Your task to perform on an android device: Check the news Image 0: 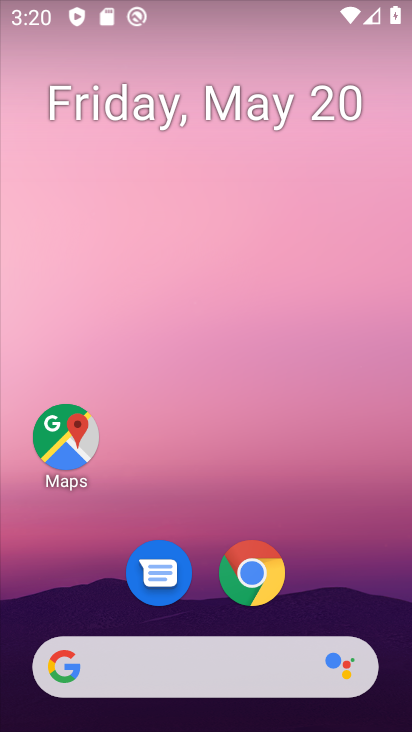
Step 0: drag from (375, 572) to (308, 153)
Your task to perform on an android device: Check the news Image 1: 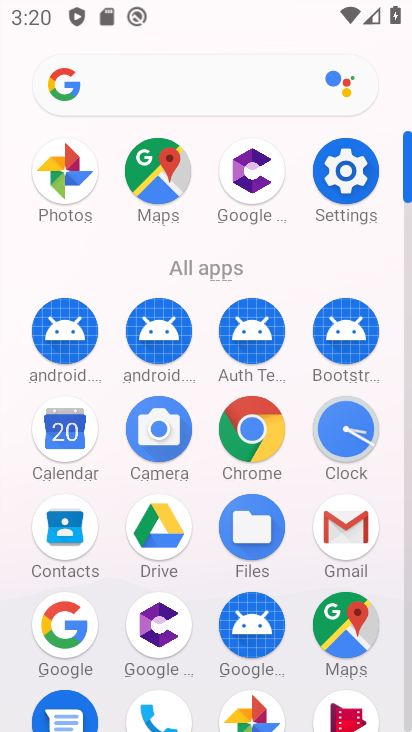
Step 1: click (246, 437)
Your task to perform on an android device: Check the news Image 2: 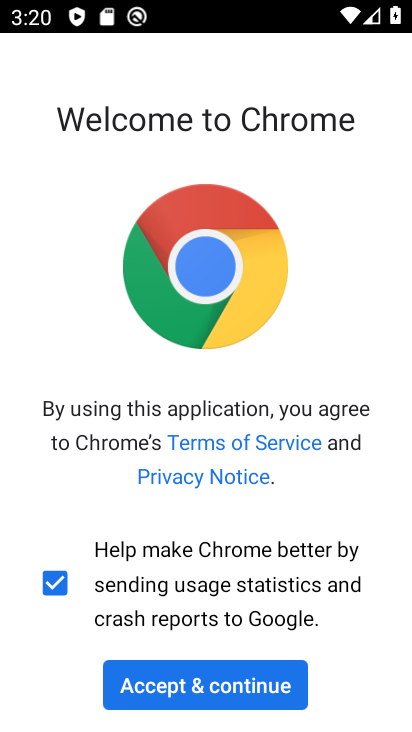
Step 2: click (158, 678)
Your task to perform on an android device: Check the news Image 3: 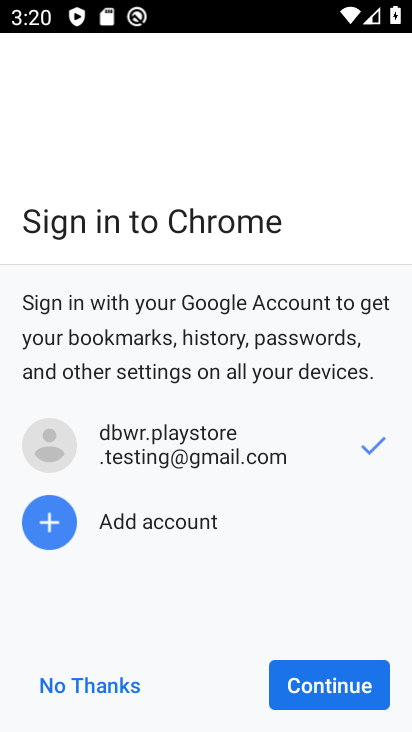
Step 3: click (296, 687)
Your task to perform on an android device: Check the news Image 4: 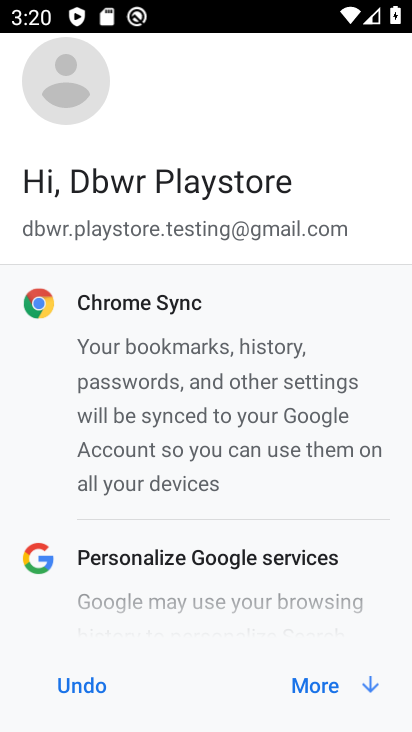
Step 4: click (343, 691)
Your task to perform on an android device: Check the news Image 5: 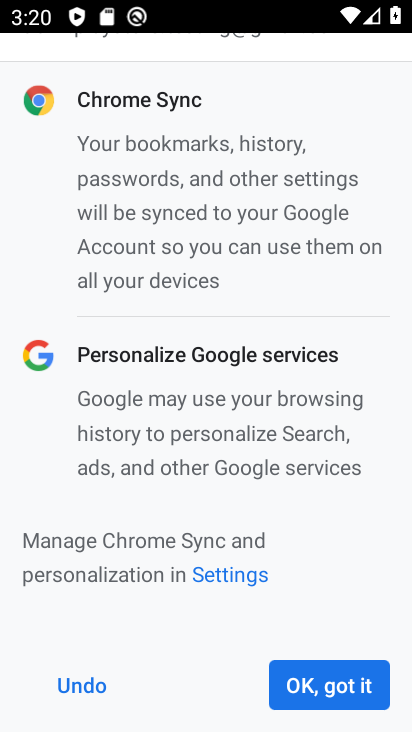
Step 5: click (343, 691)
Your task to perform on an android device: Check the news Image 6: 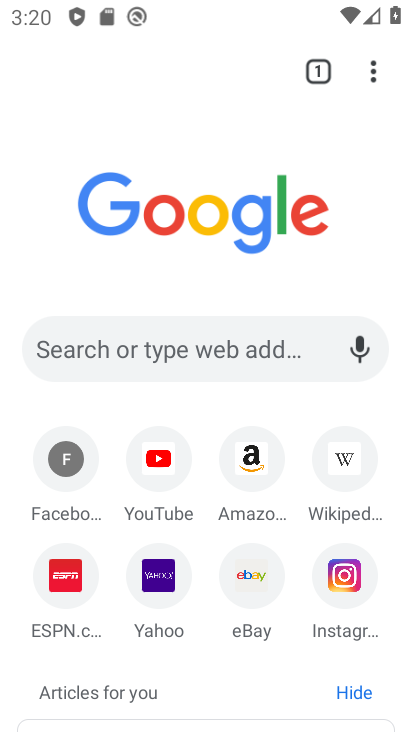
Step 6: click (199, 346)
Your task to perform on an android device: Check the news Image 7: 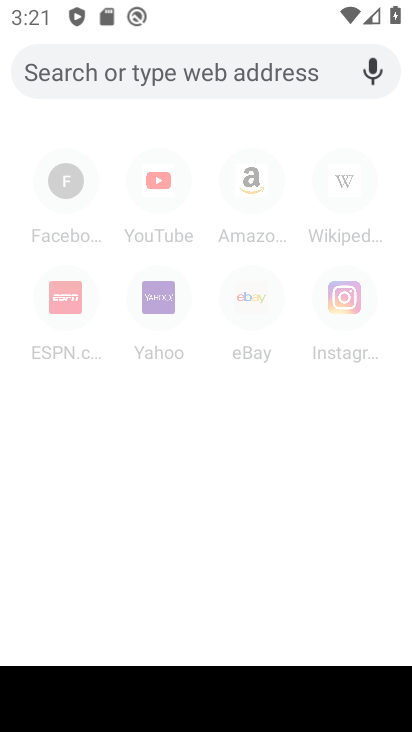
Step 7: type "check the news"
Your task to perform on an android device: Check the news Image 8: 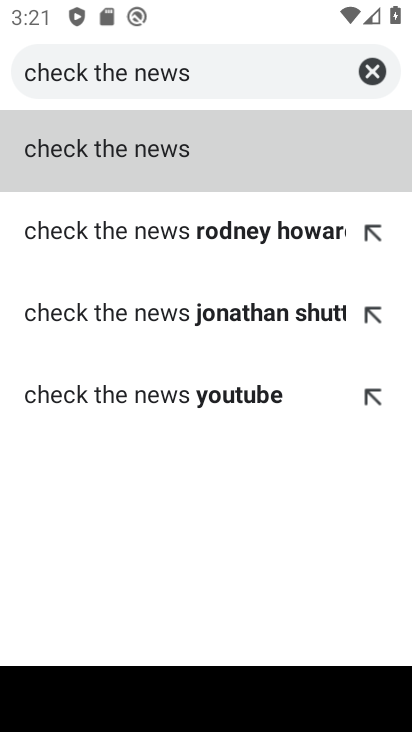
Step 8: click (102, 160)
Your task to perform on an android device: Check the news Image 9: 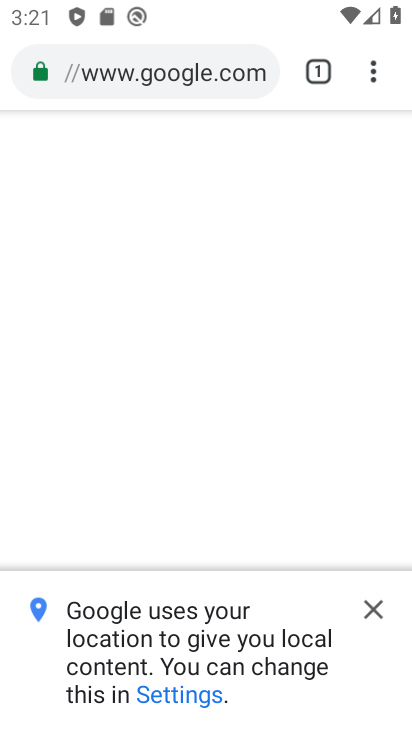
Step 9: click (369, 619)
Your task to perform on an android device: Check the news Image 10: 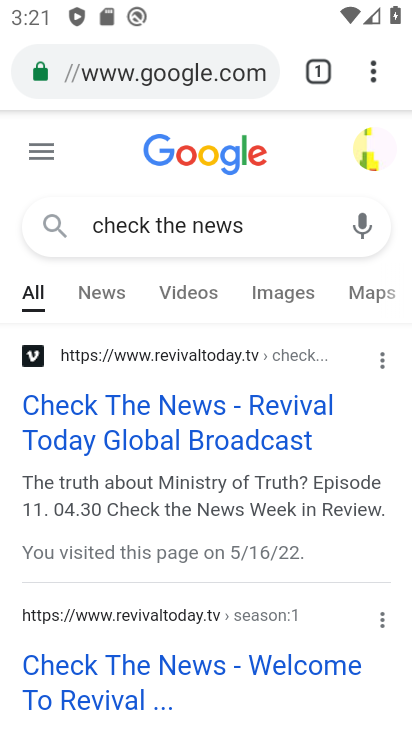
Step 10: task complete